Your task to perform on an android device: Search for pizza restaurants on Maps Image 0: 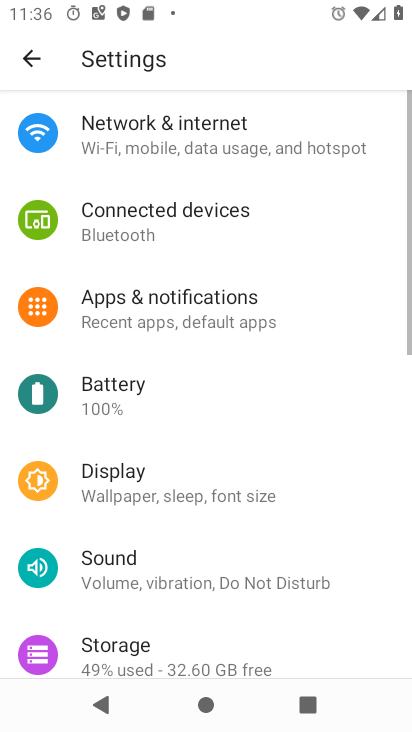
Step 0: press home button
Your task to perform on an android device: Search for pizza restaurants on Maps Image 1: 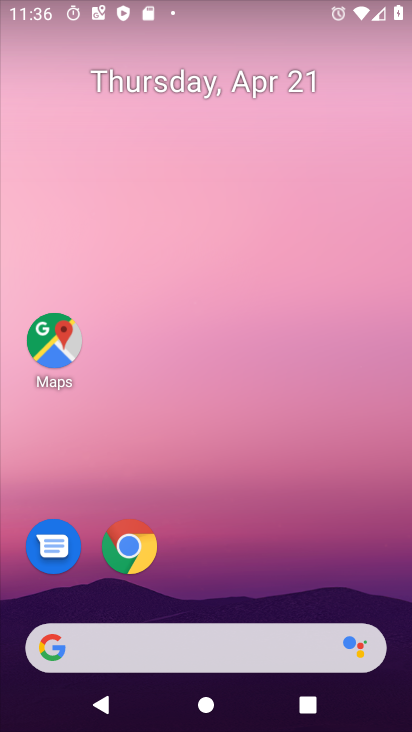
Step 1: drag from (266, 372) to (226, 23)
Your task to perform on an android device: Search for pizza restaurants on Maps Image 2: 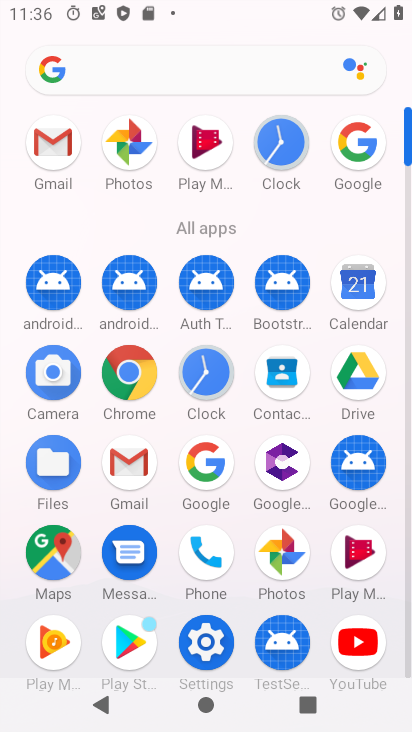
Step 2: click (46, 561)
Your task to perform on an android device: Search for pizza restaurants on Maps Image 3: 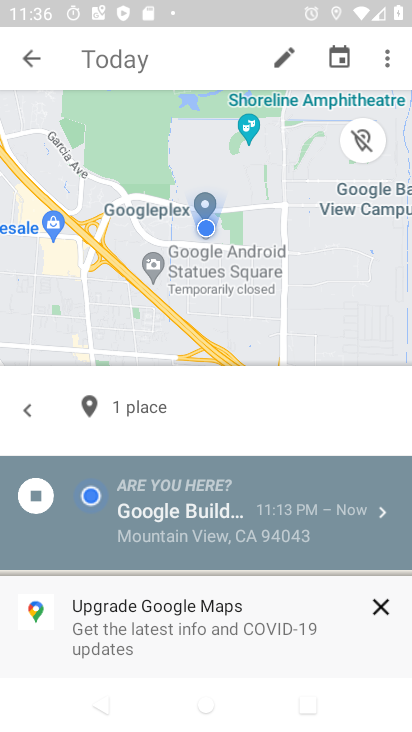
Step 3: press back button
Your task to perform on an android device: Search for pizza restaurants on Maps Image 4: 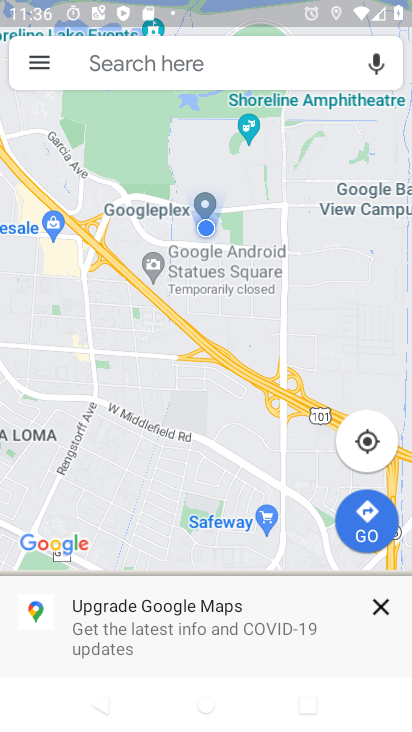
Step 4: click (214, 64)
Your task to perform on an android device: Search for pizza restaurants on Maps Image 5: 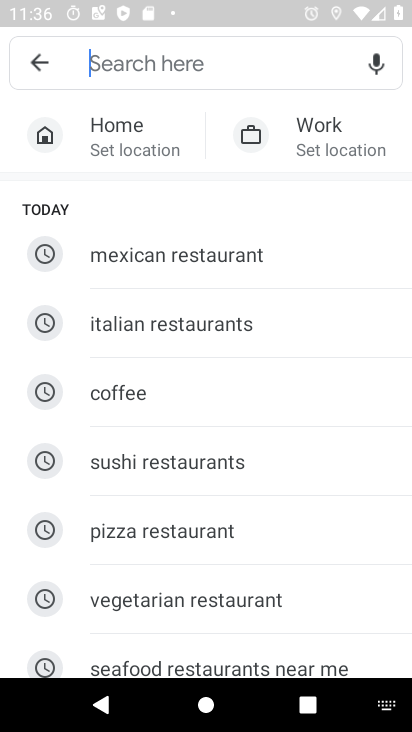
Step 5: click (205, 531)
Your task to perform on an android device: Search for pizza restaurants on Maps Image 6: 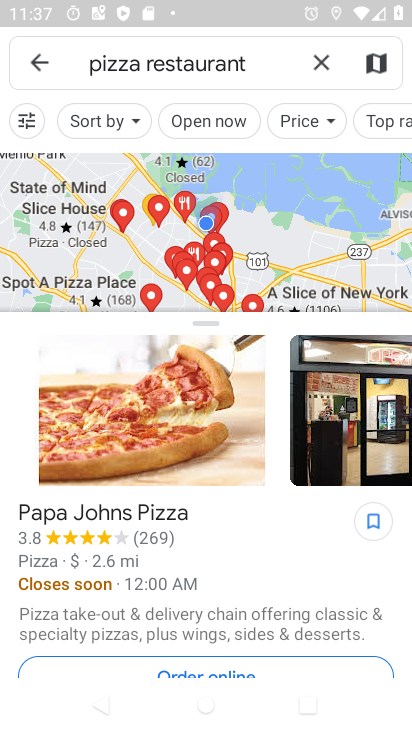
Step 6: task complete